Your task to perform on an android device: Go to Amazon Image 0: 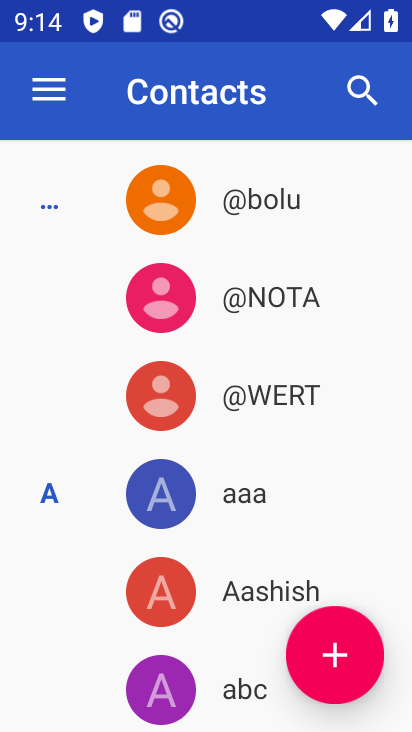
Step 0: press home button
Your task to perform on an android device: Go to Amazon Image 1: 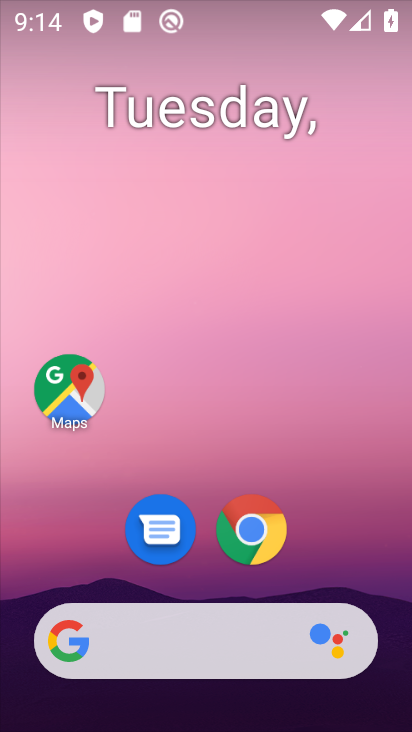
Step 1: drag from (305, 444) to (305, 177)
Your task to perform on an android device: Go to Amazon Image 2: 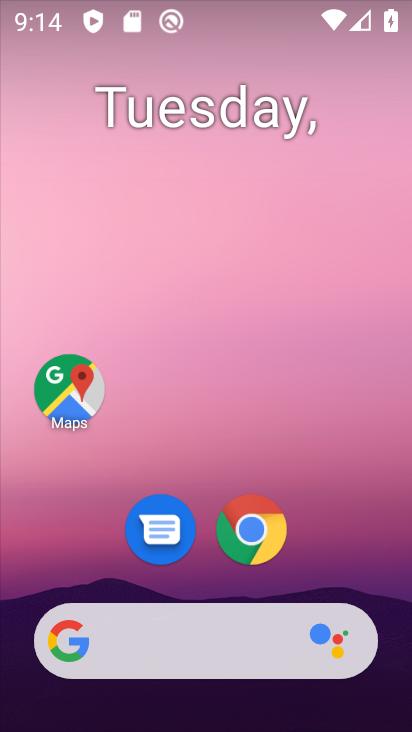
Step 2: drag from (312, 479) to (317, 95)
Your task to perform on an android device: Go to Amazon Image 3: 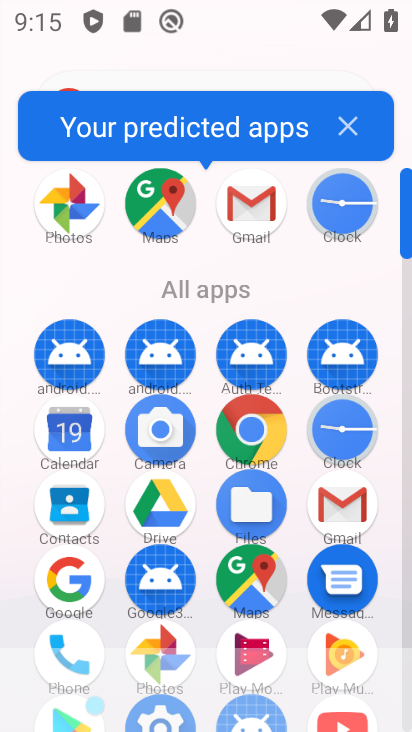
Step 3: click (264, 425)
Your task to perform on an android device: Go to Amazon Image 4: 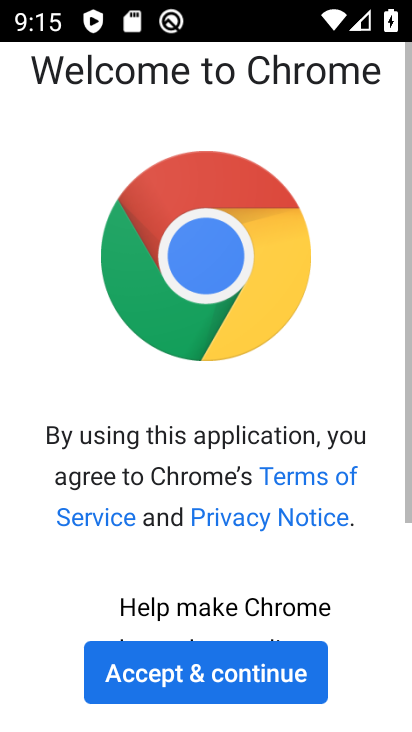
Step 4: click (187, 667)
Your task to perform on an android device: Go to Amazon Image 5: 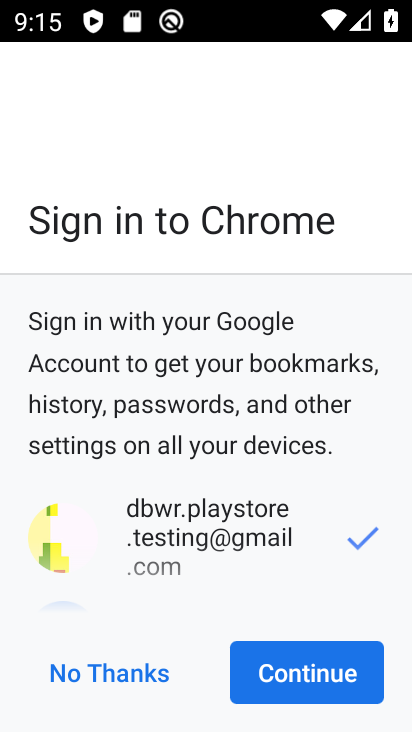
Step 5: click (284, 676)
Your task to perform on an android device: Go to Amazon Image 6: 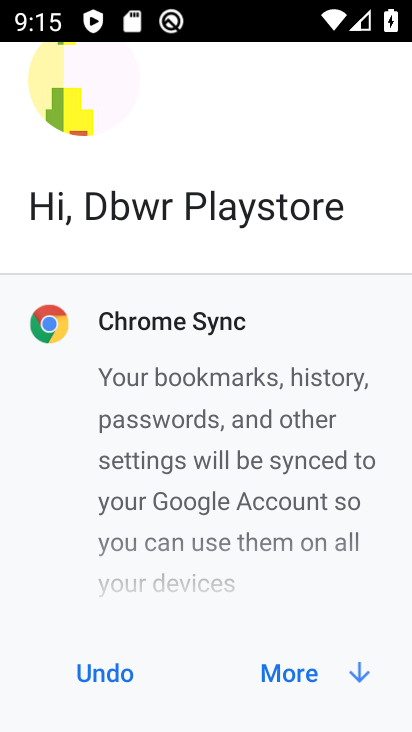
Step 6: click (297, 686)
Your task to perform on an android device: Go to Amazon Image 7: 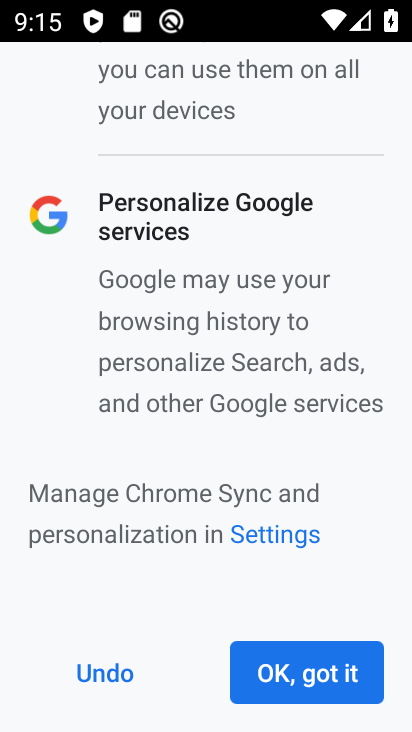
Step 7: click (297, 686)
Your task to perform on an android device: Go to Amazon Image 8: 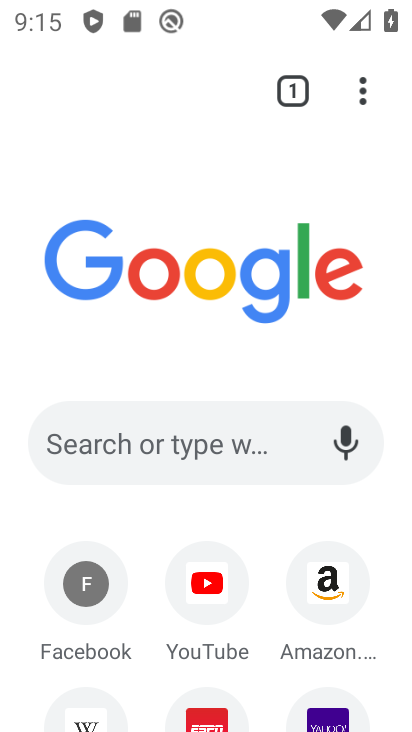
Step 8: click (325, 582)
Your task to perform on an android device: Go to Amazon Image 9: 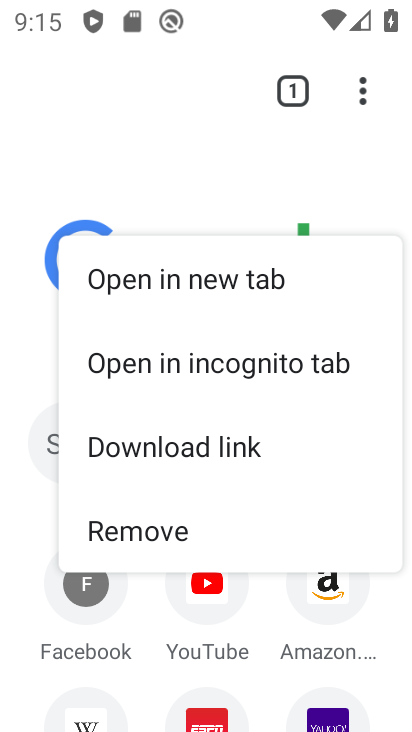
Step 9: click (320, 605)
Your task to perform on an android device: Go to Amazon Image 10: 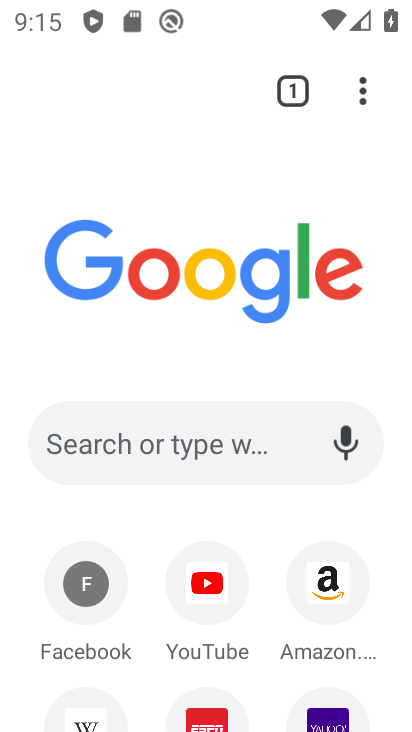
Step 10: click (326, 597)
Your task to perform on an android device: Go to Amazon Image 11: 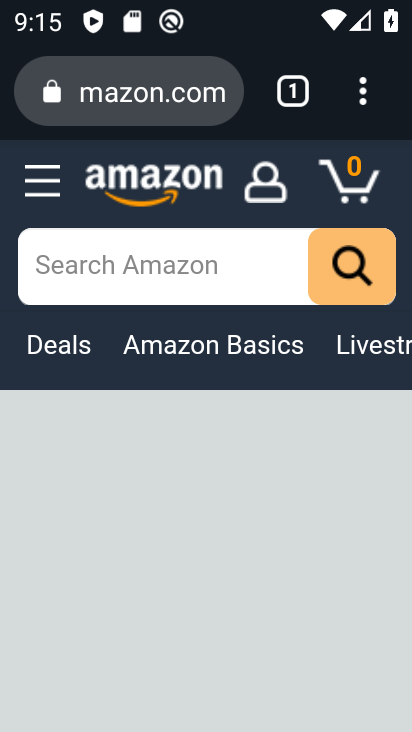
Step 11: task complete